Your task to perform on an android device: Go to display settings Image 0: 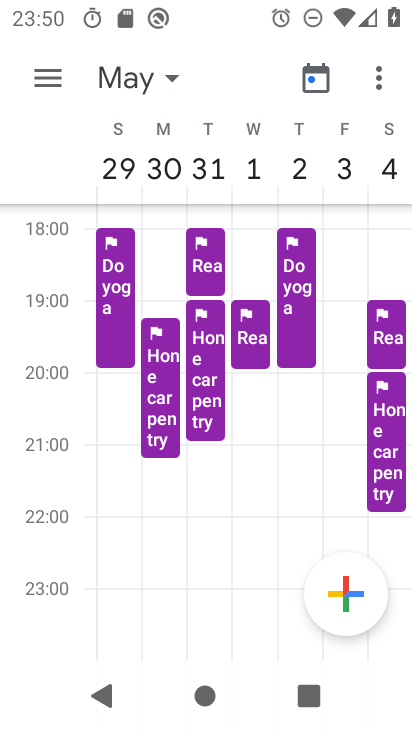
Step 0: press home button
Your task to perform on an android device: Go to display settings Image 1: 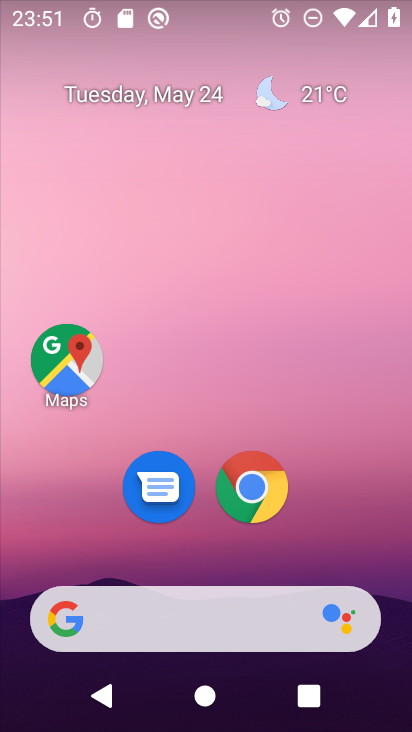
Step 1: drag from (355, 577) to (369, 7)
Your task to perform on an android device: Go to display settings Image 2: 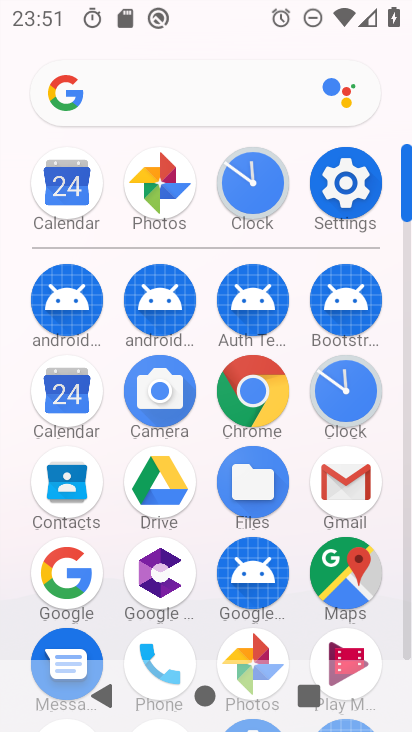
Step 2: click (341, 191)
Your task to perform on an android device: Go to display settings Image 3: 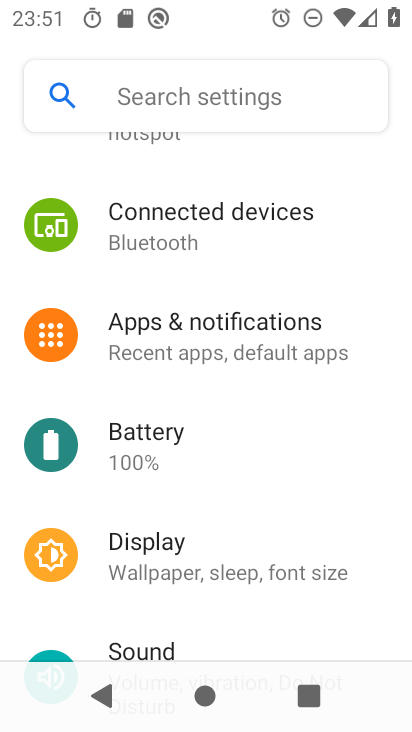
Step 3: click (147, 543)
Your task to perform on an android device: Go to display settings Image 4: 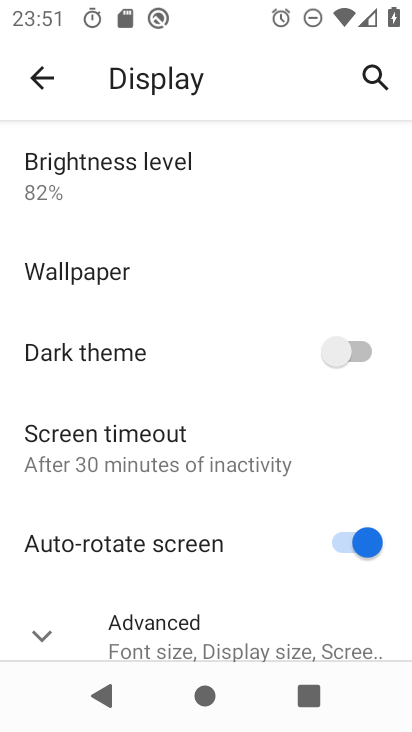
Step 4: task complete